Your task to perform on an android device: Open calendar and show me the third week of next month Image 0: 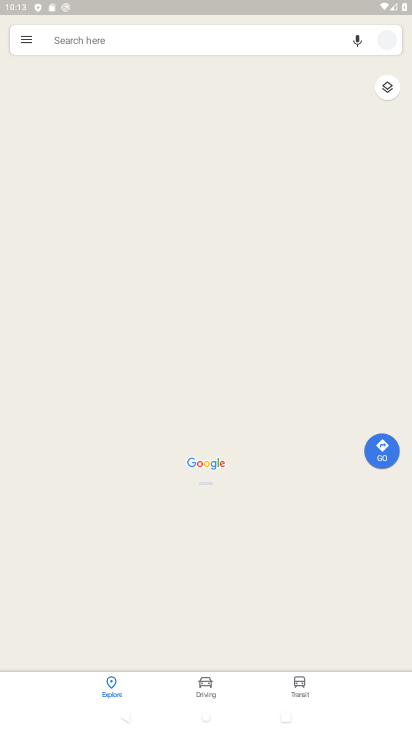
Step 0: task complete